Your task to perform on an android device: Open the Play Movies app and select the watchlist tab. Image 0: 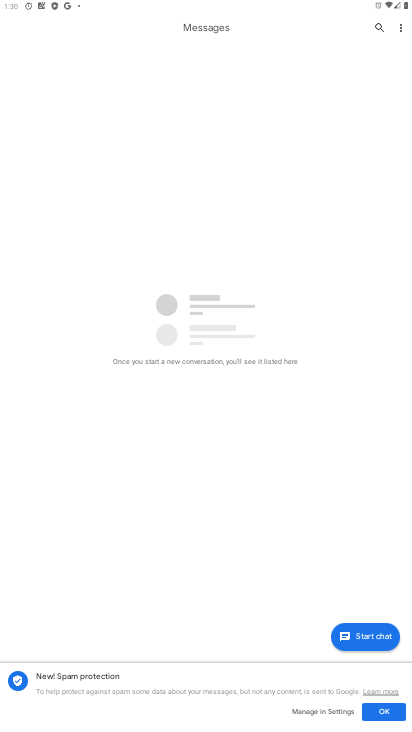
Step 0: press home button
Your task to perform on an android device: Open the Play Movies app and select the watchlist tab. Image 1: 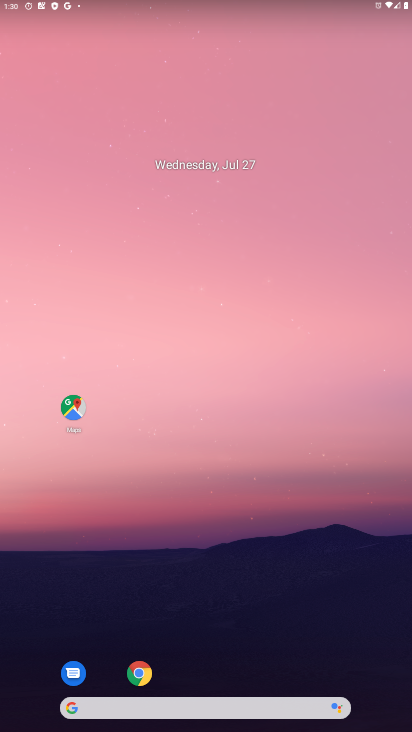
Step 1: drag from (242, 687) to (248, 7)
Your task to perform on an android device: Open the Play Movies app and select the watchlist tab. Image 2: 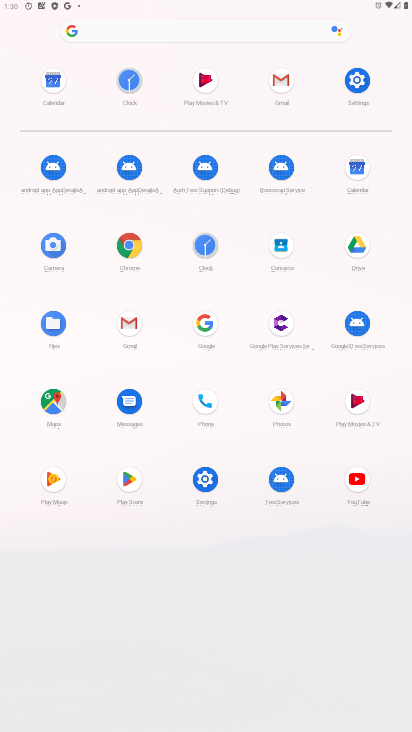
Step 2: click (352, 401)
Your task to perform on an android device: Open the Play Movies app and select the watchlist tab. Image 3: 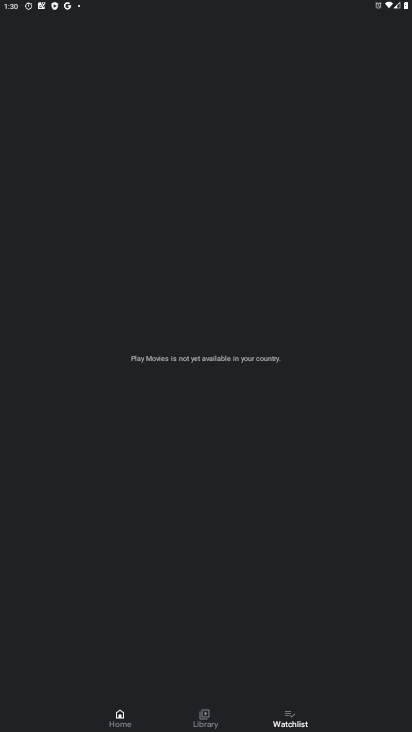
Step 3: click (287, 713)
Your task to perform on an android device: Open the Play Movies app and select the watchlist tab. Image 4: 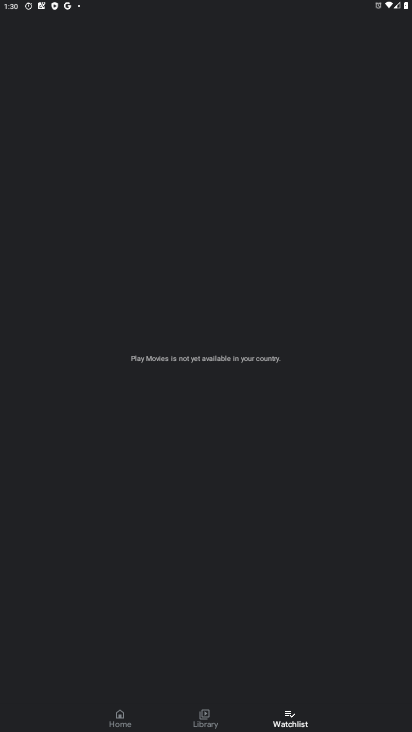
Step 4: task complete